Your task to perform on an android device: toggle notification dots Image 0: 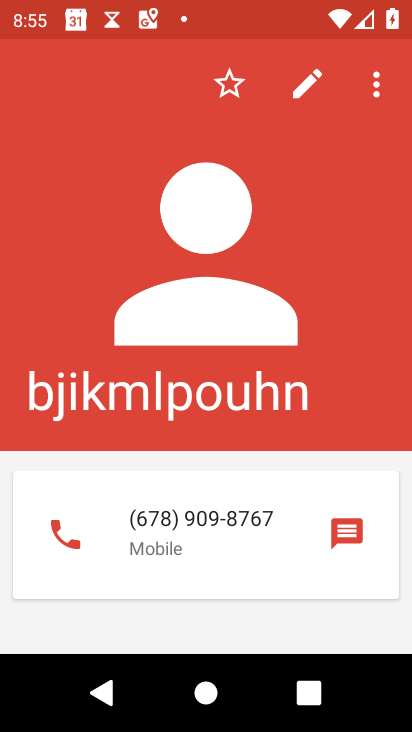
Step 0: press home button
Your task to perform on an android device: toggle notification dots Image 1: 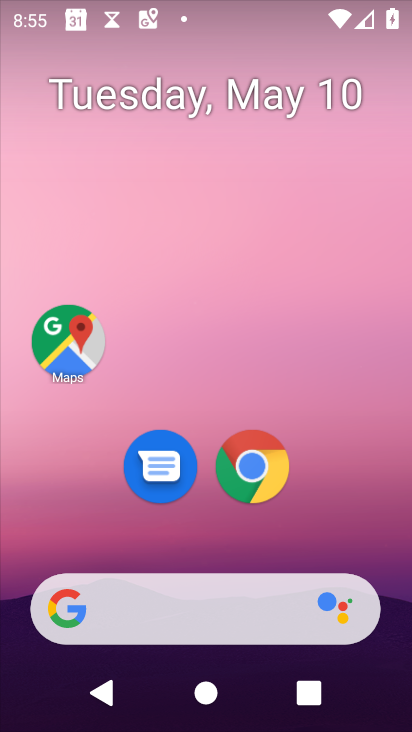
Step 1: drag from (290, 539) to (323, 82)
Your task to perform on an android device: toggle notification dots Image 2: 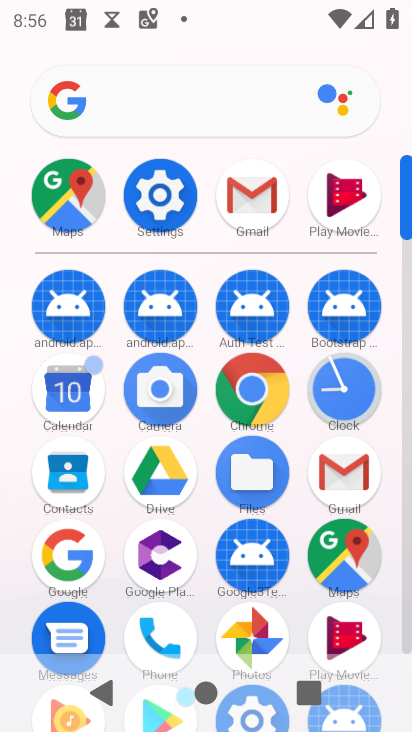
Step 2: click (171, 210)
Your task to perform on an android device: toggle notification dots Image 3: 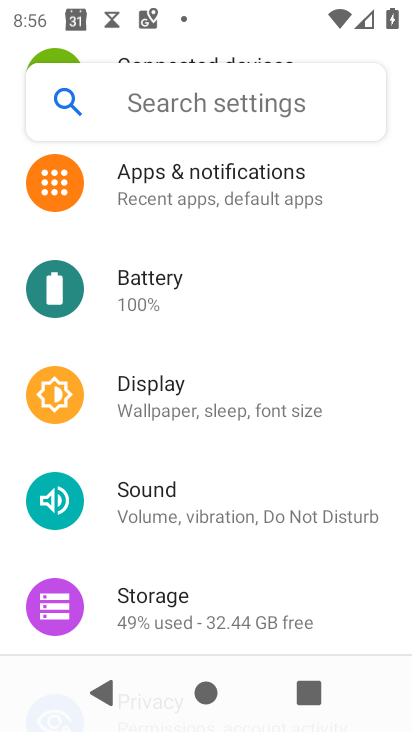
Step 3: click (197, 206)
Your task to perform on an android device: toggle notification dots Image 4: 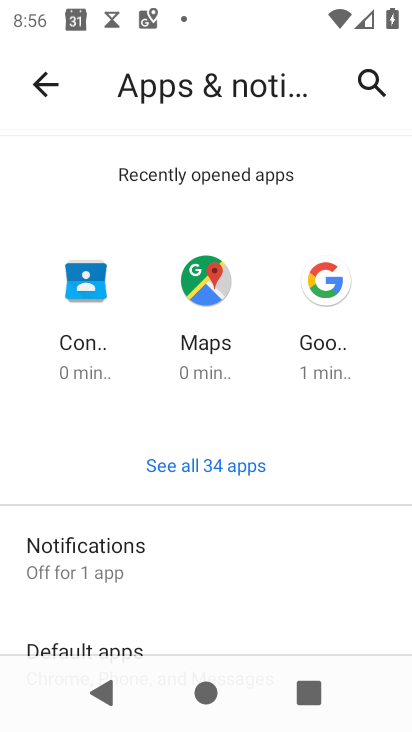
Step 4: click (182, 557)
Your task to perform on an android device: toggle notification dots Image 5: 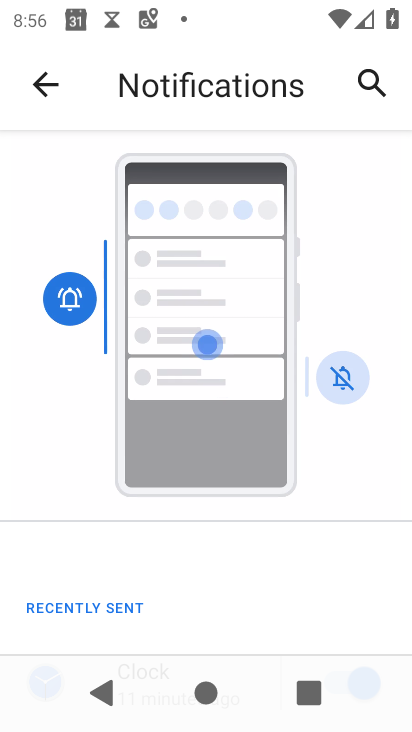
Step 5: drag from (148, 573) to (191, 183)
Your task to perform on an android device: toggle notification dots Image 6: 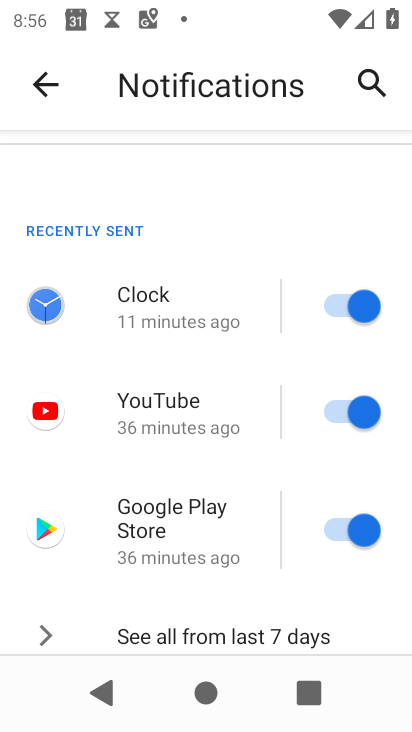
Step 6: drag from (161, 497) to (185, 296)
Your task to perform on an android device: toggle notification dots Image 7: 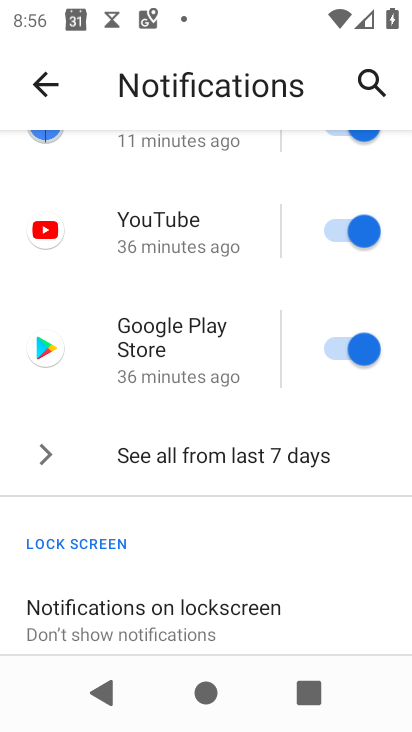
Step 7: drag from (198, 515) to (269, 263)
Your task to perform on an android device: toggle notification dots Image 8: 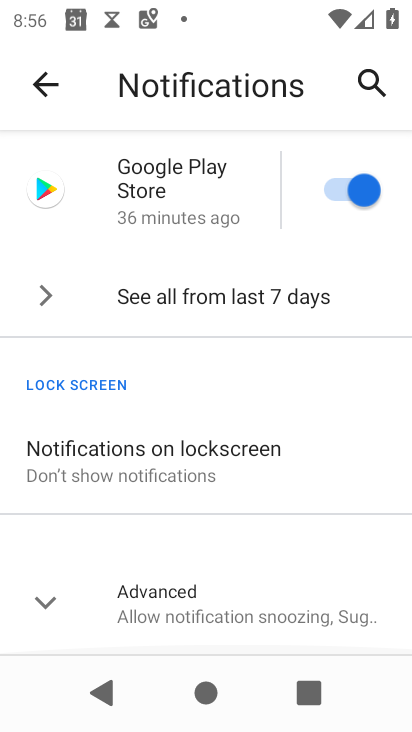
Step 8: click (265, 616)
Your task to perform on an android device: toggle notification dots Image 9: 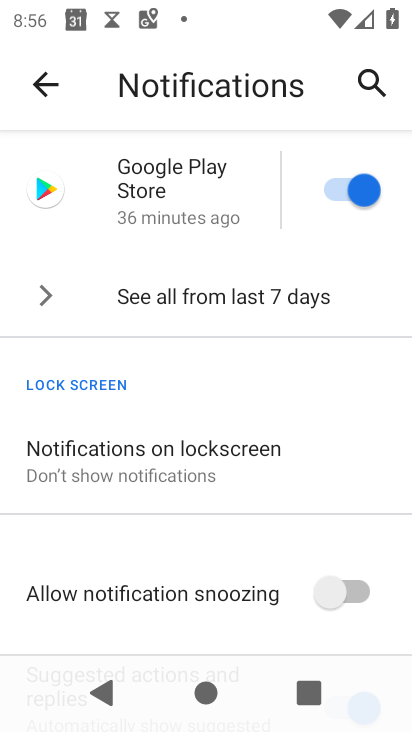
Step 9: drag from (264, 610) to (337, 421)
Your task to perform on an android device: toggle notification dots Image 10: 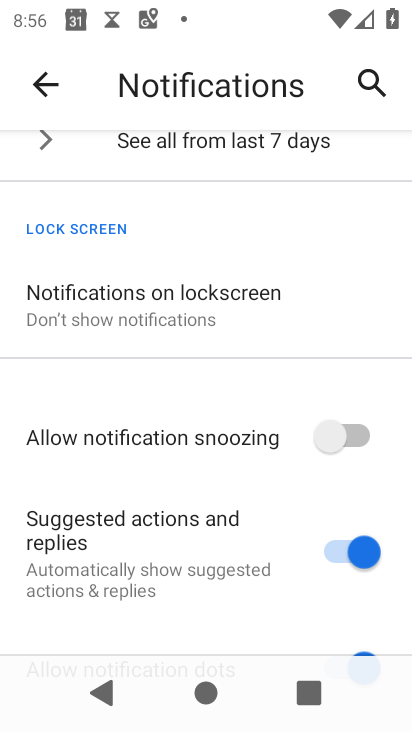
Step 10: drag from (242, 540) to (282, 374)
Your task to perform on an android device: toggle notification dots Image 11: 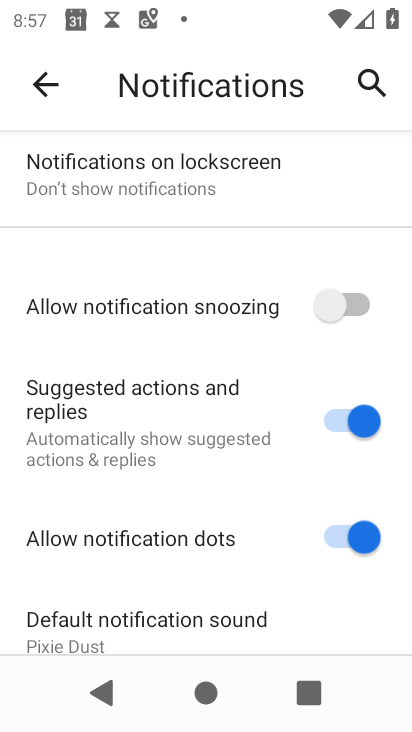
Step 11: click (328, 539)
Your task to perform on an android device: toggle notification dots Image 12: 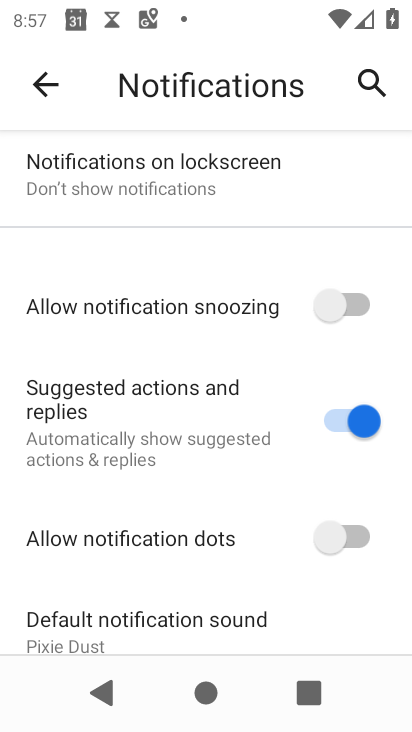
Step 12: task complete